Your task to perform on an android device: clear all cookies in the chrome app Image 0: 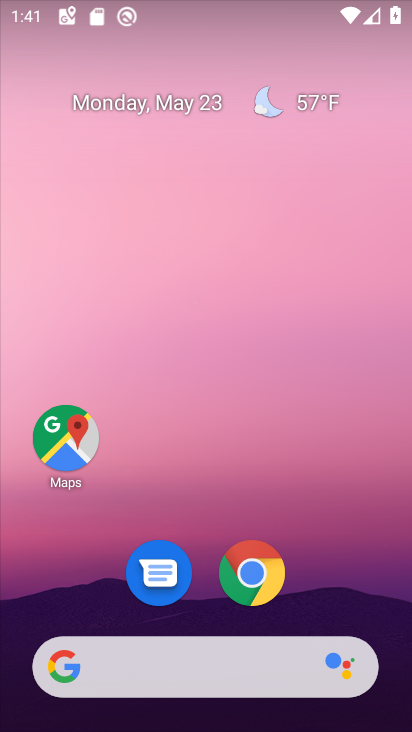
Step 0: click (256, 579)
Your task to perform on an android device: clear all cookies in the chrome app Image 1: 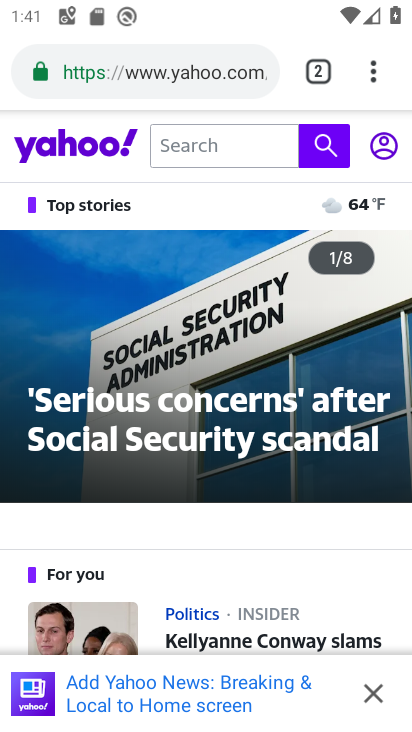
Step 1: click (380, 58)
Your task to perform on an android device: clear all cookies in the chrome app Image 2: 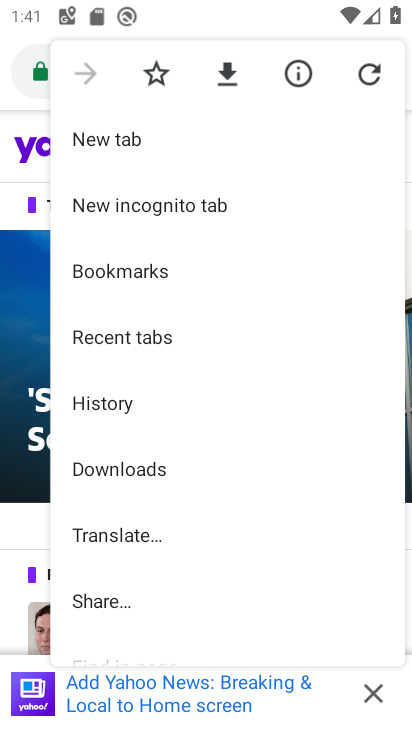
Step 2: drag from (219, 610) to (227, 178)
Your task to perform on an android device: clear all cookies in the chrome app Image 3: 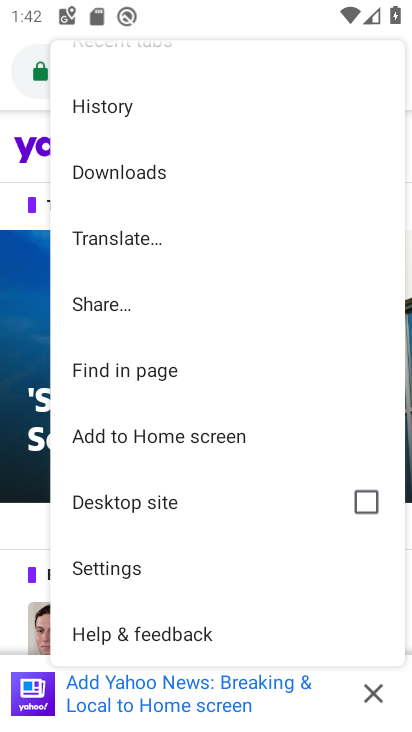
Step 3: click (119, 102)
Your task to perform on an android device: clear all cookies in the chrome app Image 4: 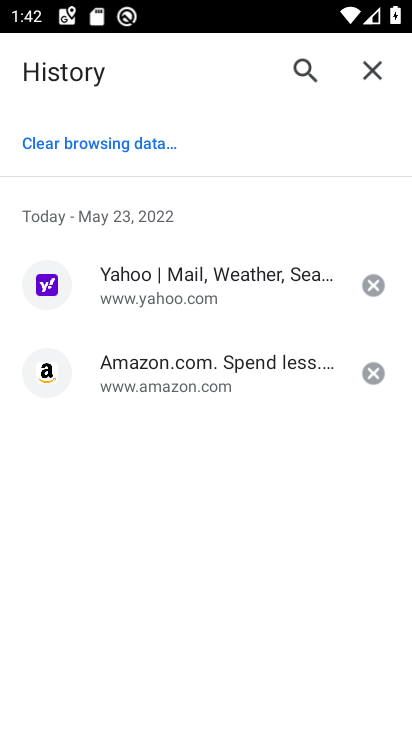
Step 4: click (79, 142)
Your task to perform on an android device: clear all cookies in the chrome app Image 5: 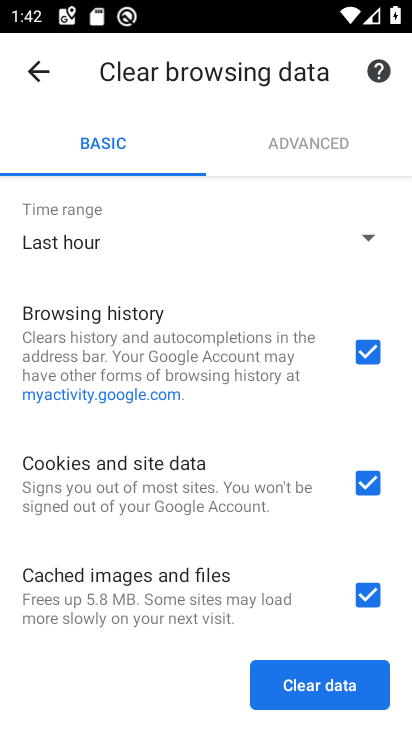
Step 5: click (362, 681)
Your task to perform on an android device: clear all cookies in the chrome app Image 6: 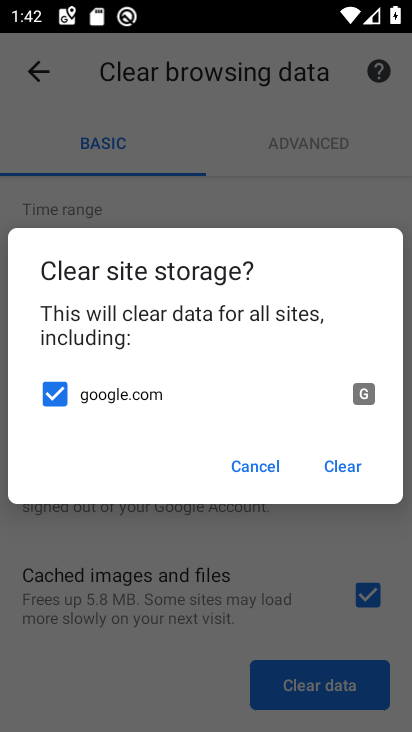
Step 6: click (345, 461)
Your task to perform on an android device: clear all cookies in the chrome app Image 7: 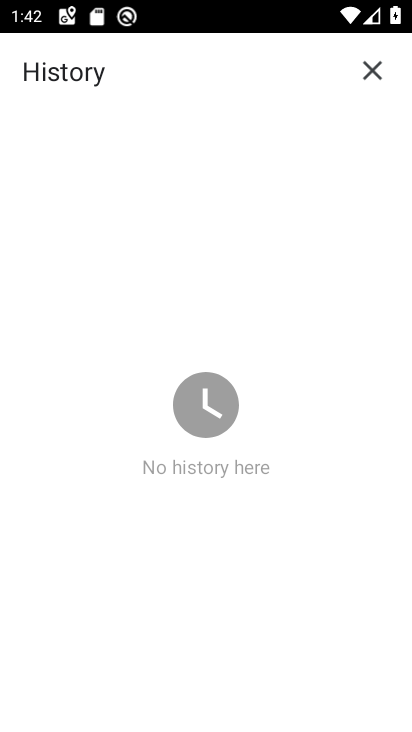
Step 7: task complete